Your task to perform on an android device: allow notifications from all sites in the chrome app Image 0: 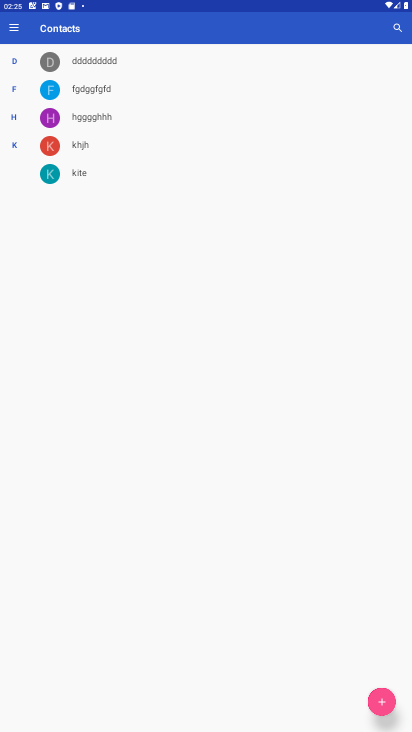
Step 0: press home button
Your task to perform on an android device: allow notifications from all sites in the chrome app Image 1: 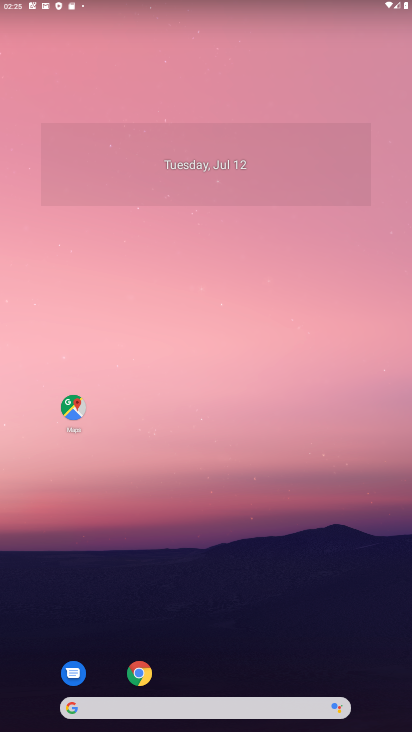
Step 1: drag from (212, 643) to (181, 220)
Your task to perform on an android device: allow notifications from all sites in the chrome app Image 2: 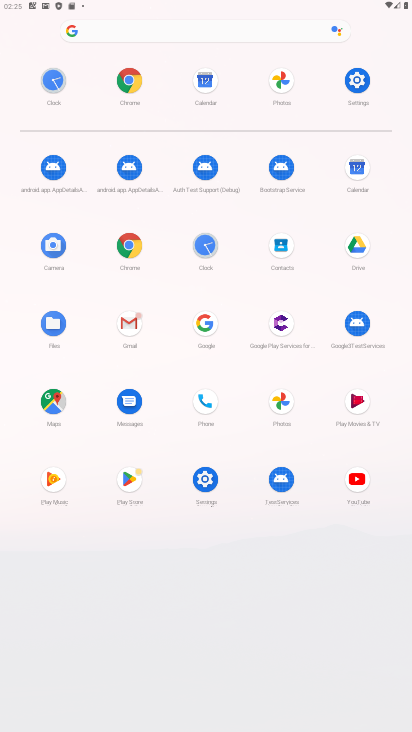
Step 2: click (124, 245)
Your task to perform on an android device: allow notifications from all sites in the chrome app Image 3: 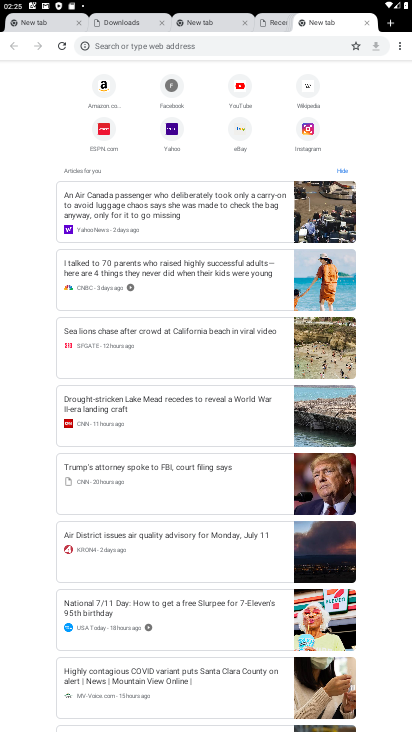
Step 3: drag from (399, 50) to (304, 216)
Your task to perform on an android device: allow notifications from all sites in the chrome app Image 4: 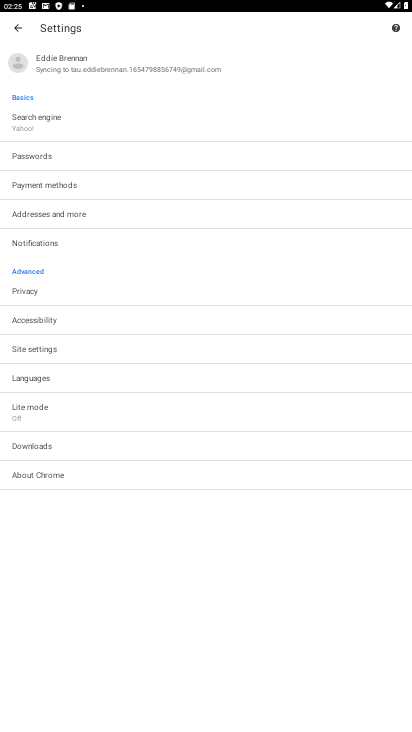
Step 4: click (40, 344)
Your task to perform on an android device: allow notifications from all sites in the chrome app Image 5: 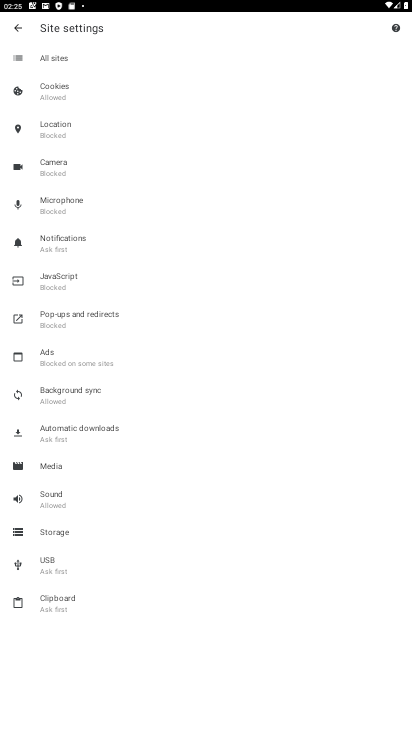
Step 5: click (64, 249)
Your task to perform on an android device: allow notifications from all sites in the chrome app Image 6: 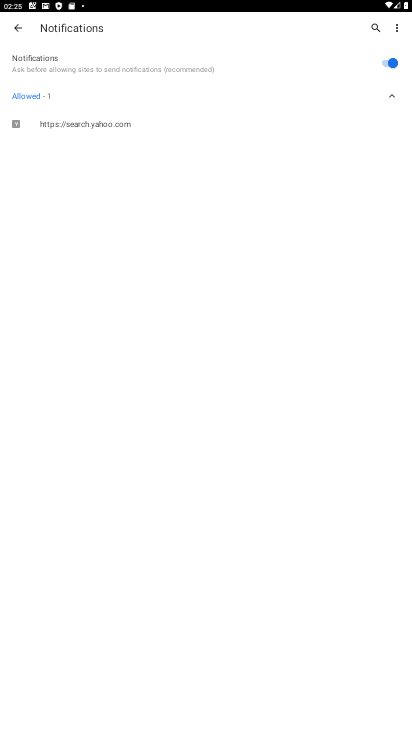
Step 6: task complete